Your task to perform on an android device: stop showing notifications on the lock screen Image 0: 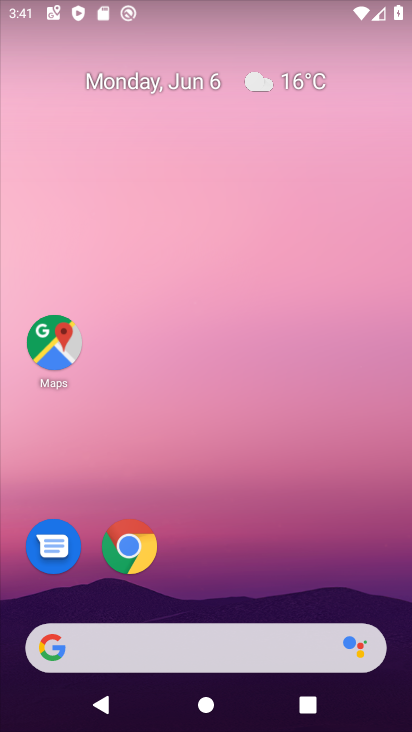
Step 0: drag from (345, 592) to (389, 11)
Your task to perform on an android device: stop showing notifications on the lock screen Image 1: 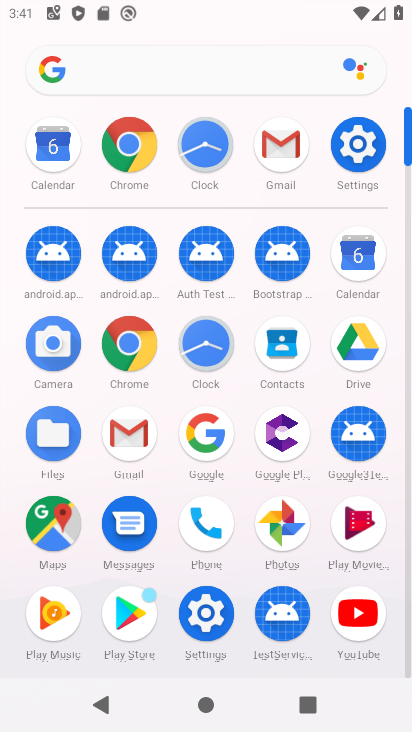
Step 1: click (349, 143)
Your task to perform on an android device: stop showing notifications on the lock screen Image 2: 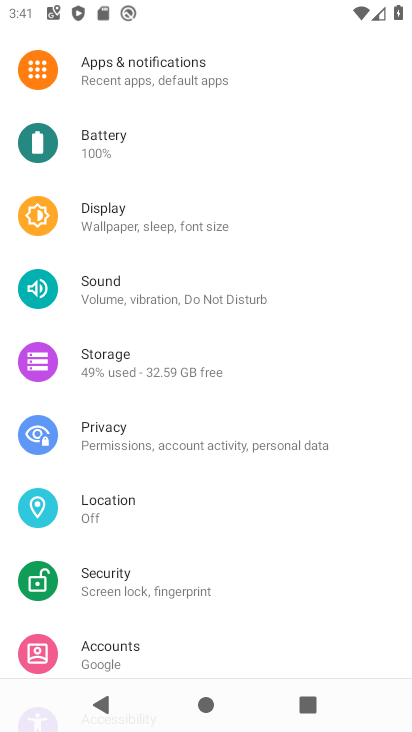
Step 2: drag from (142, 214) to (233, 648)
Your task to perform on an android device: stop showing notifications on the lock screen Image 3: 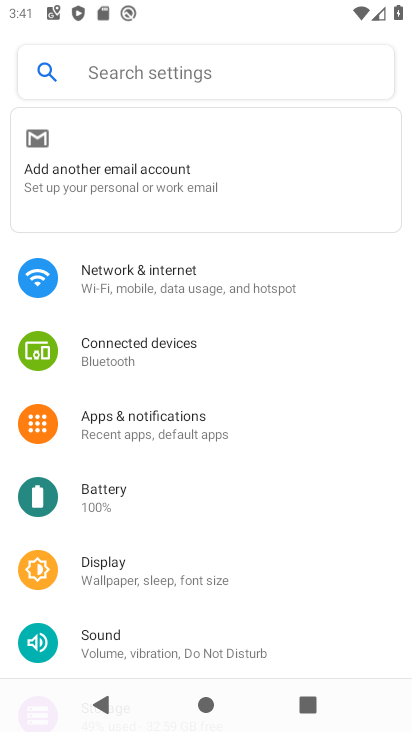
Step 3: click (171, 433)
Your task to perform on an android device: stop showing notifications on the lock screen Image 4: 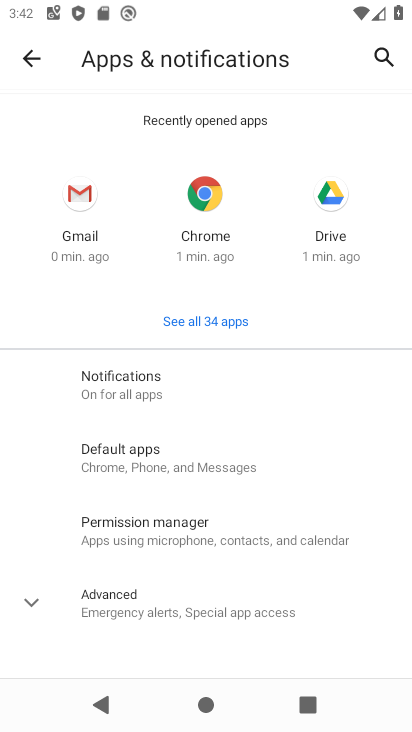
Step 4: drag from (215, 571) to (235, 150)
Your task to perform on an android device: stop showing notifications on the lock screen Image 5: 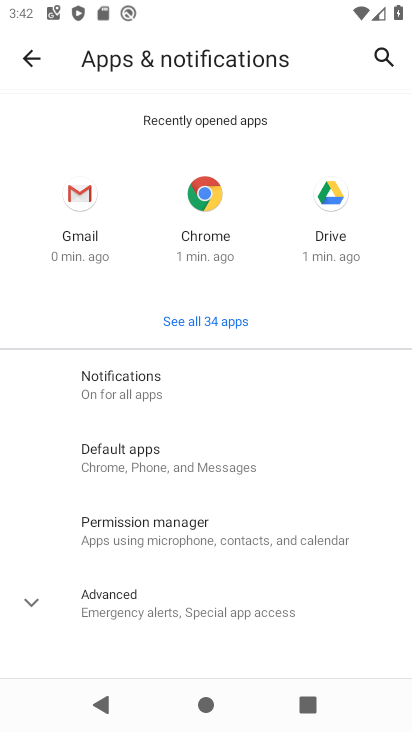
Step 5: click (117, 391)
Your task to perform on an android device: stop showing notifications on the lock screen Image 6: 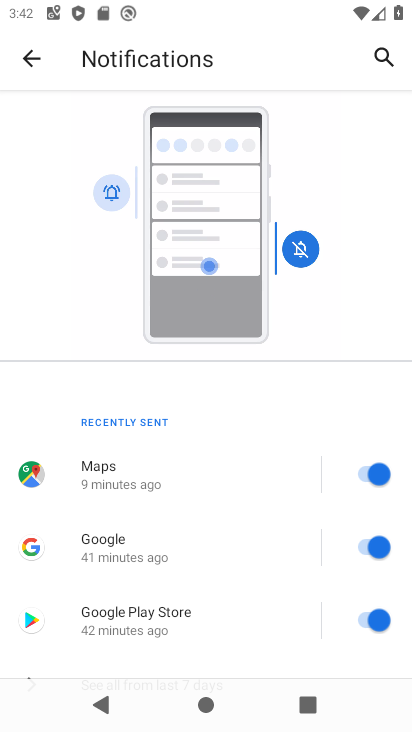
Step 6: drag from (178, 581) to (193, 146)
Your task to perform on an android device: stop showing notifications on the lock screen Image 7: 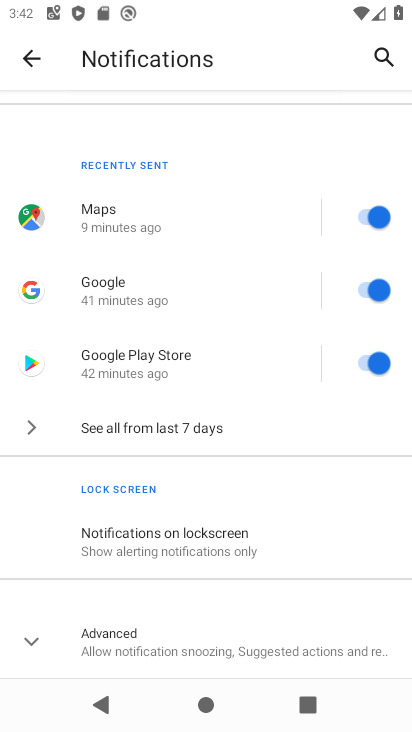
Step 7: click (123, 547)
Your task to perform on an android device: stop showing notifications on the lock screen Image 8: 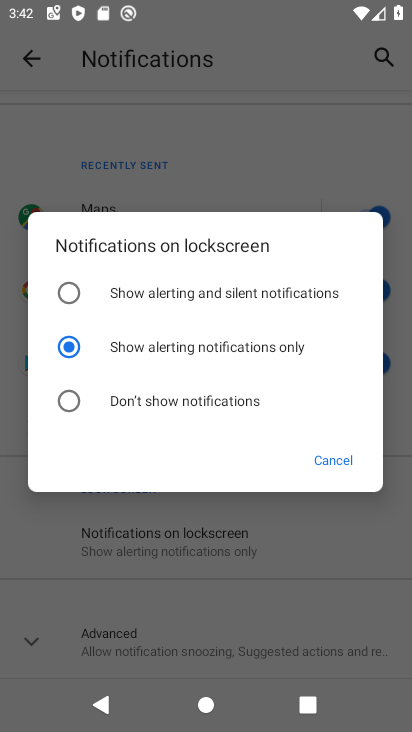
Step 8: click (113, 404)
Your task to perform on an android device: stop showing notifications on the lock screen Image 9: 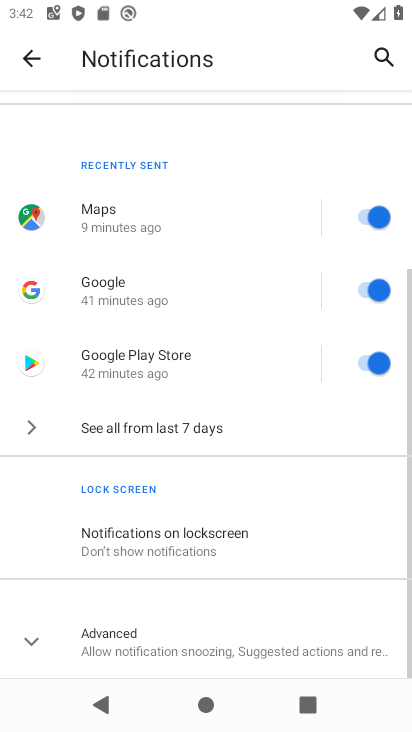
Step 9: task complete